Your task to perform on an android device: create a new album in the google photos Image 0: 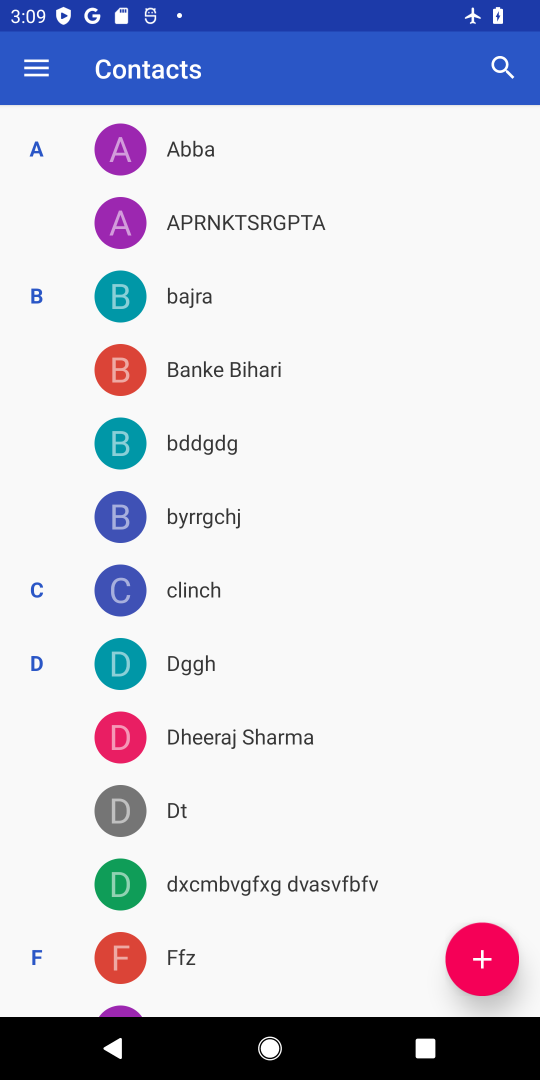
Step 0: press home button
Your task to perform on an android device: create a new album in the google photos Image 1: 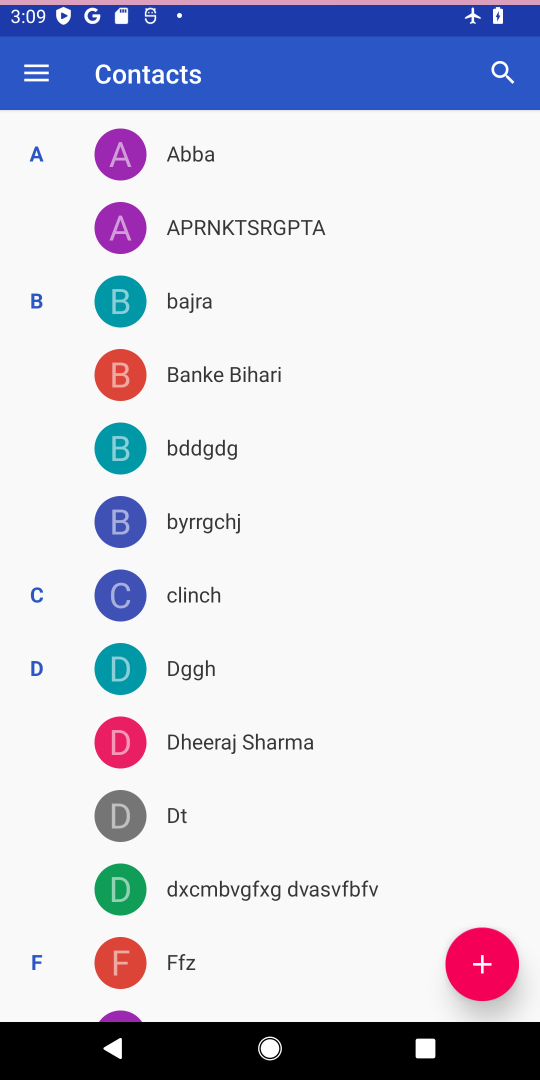
Step 1: press home button
Your task to perform on an android device: create a new album in the google photos Image 2: 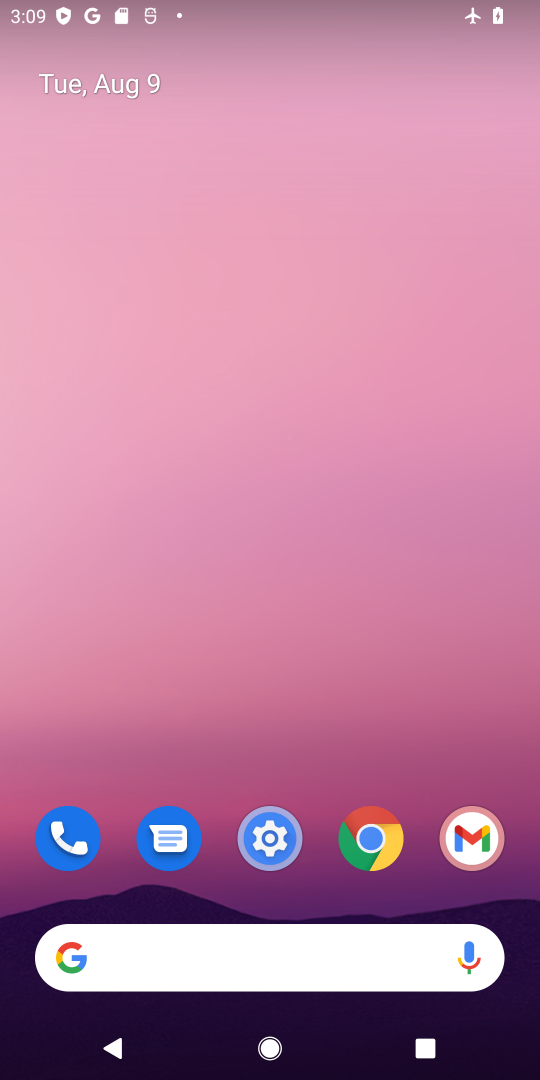
Step 2: drag from (291, 804) to (304, 168)
Your task to perform on an android device: create a new album in the google photos Image 3: 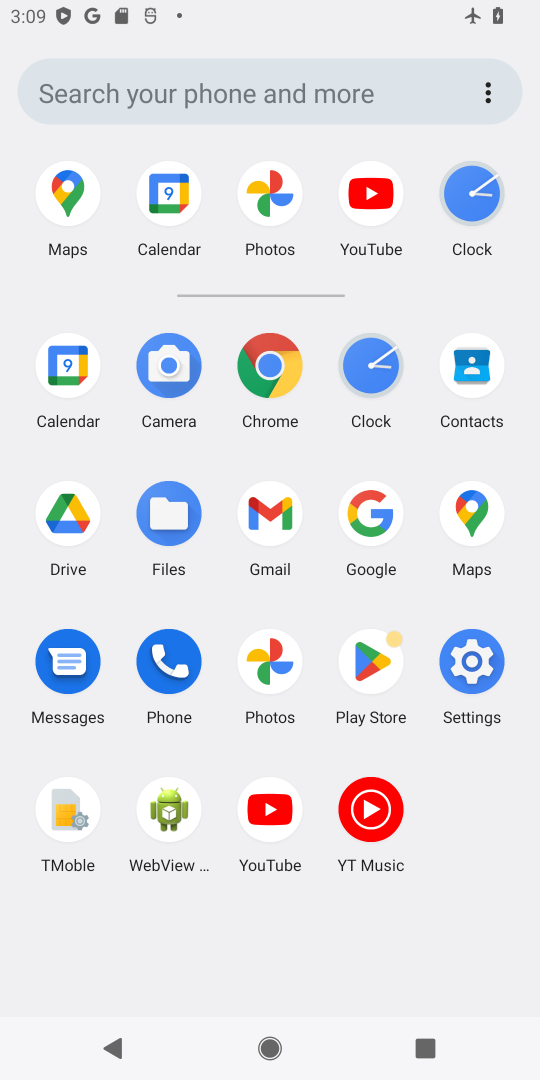
Step 3: click (258, 668)
Your task to perform on an android device: create a new album in the google photos Image 4: 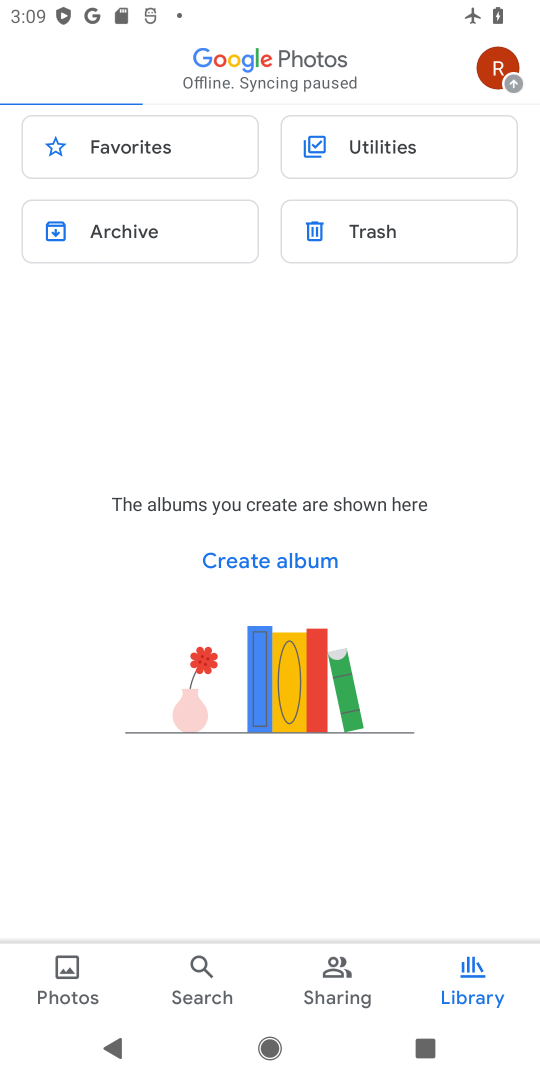
Step 4: click (72, 984)
Your task to perform on an android device: create a new album in the google photos Image 5: 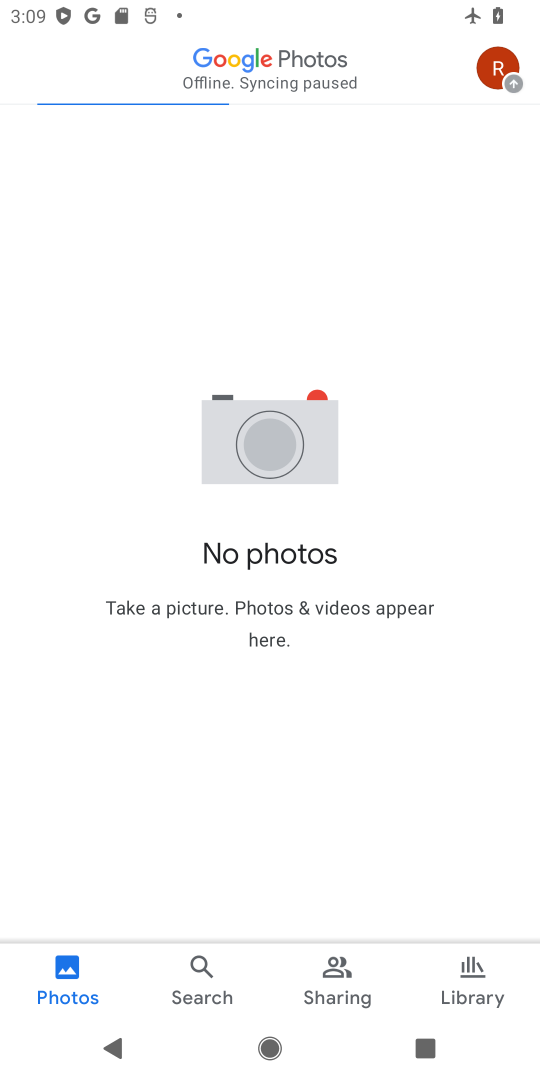
Step 5: click (368, 994)
Your task to perform on an android device: create a new album in the google photos Image 6: 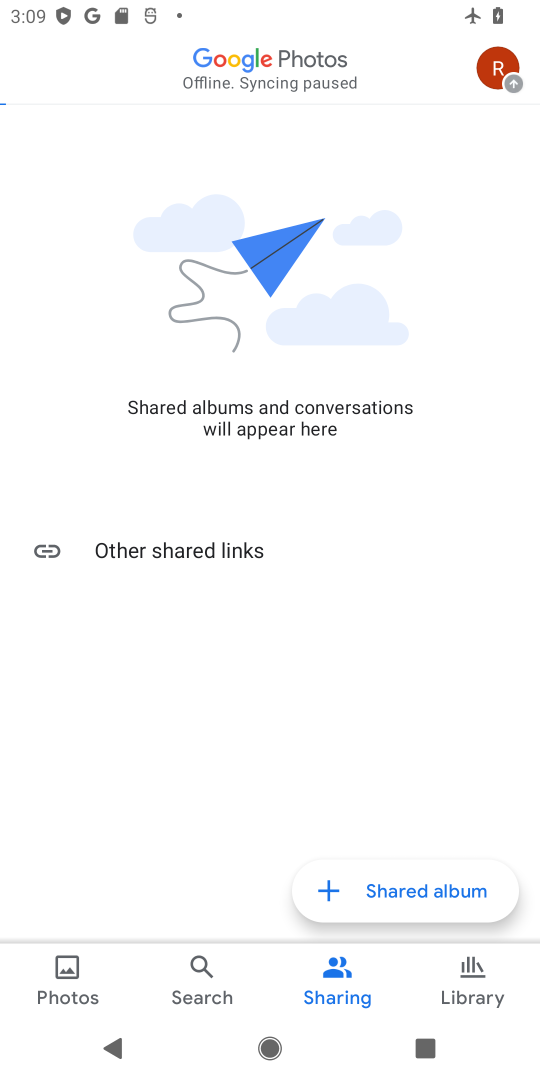
Step 6: click (477, 970)
Your task to perform on an android device: create a new album in the google photos Image 7: 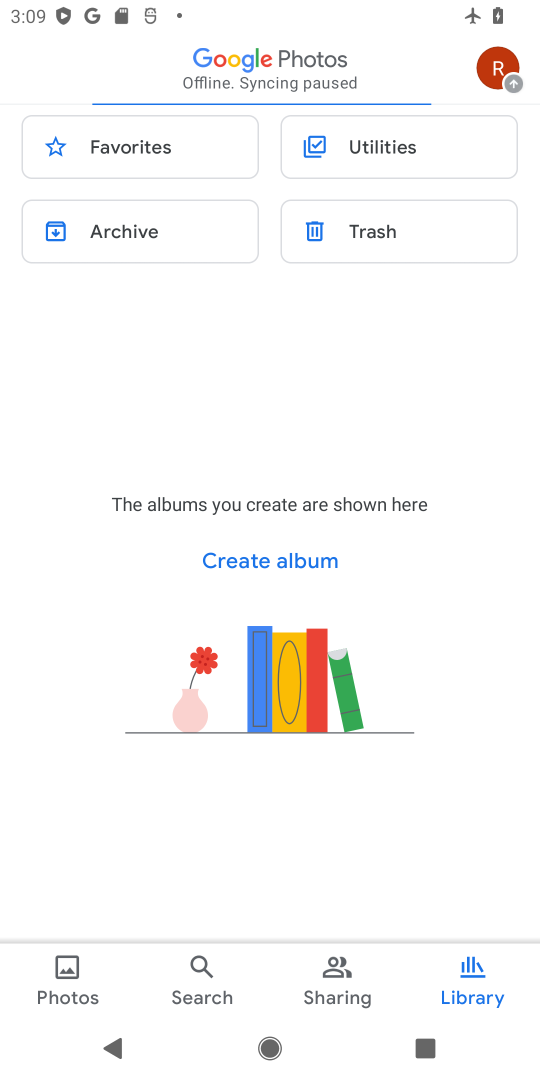
Step 7: click (231, 569)
Your task to perform on an android device: create a new album in the google photos Image 8: 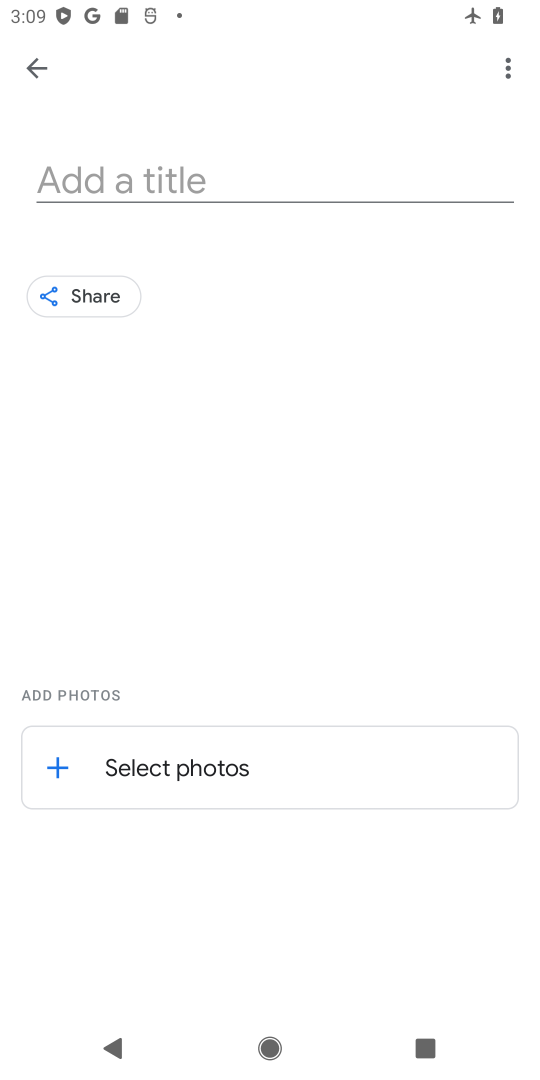
Step 8: click (296, 169)
Your task to perform on an android device: create a new album in the google photos Image 9: 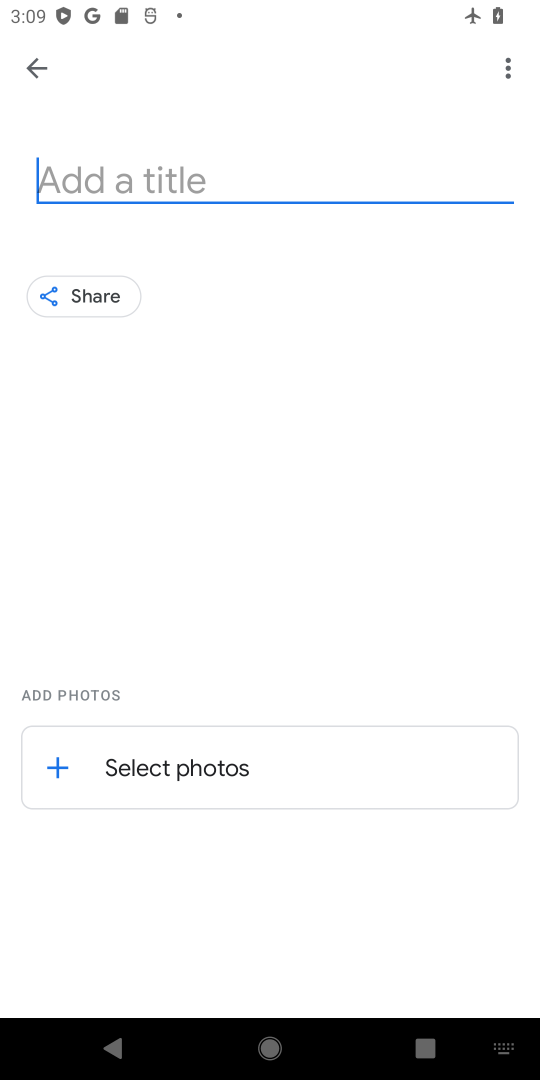
Step 9: click (304, 181)
Your task to perform on an android device: create a new album in the google photos Image 10: 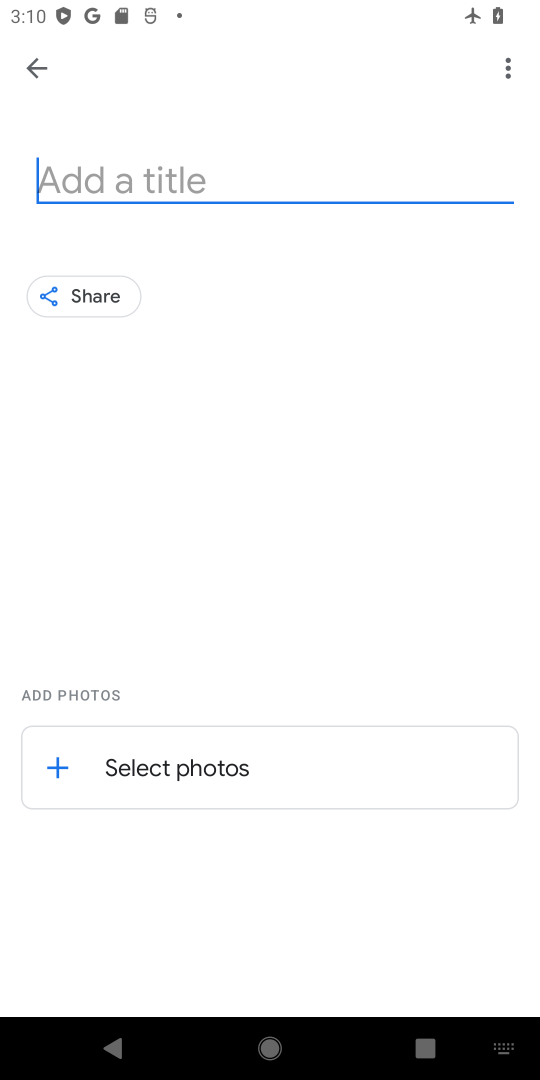
Step 10: type "fiik"
Your task to perform on an android device: create a new album in the google photos Image 11: 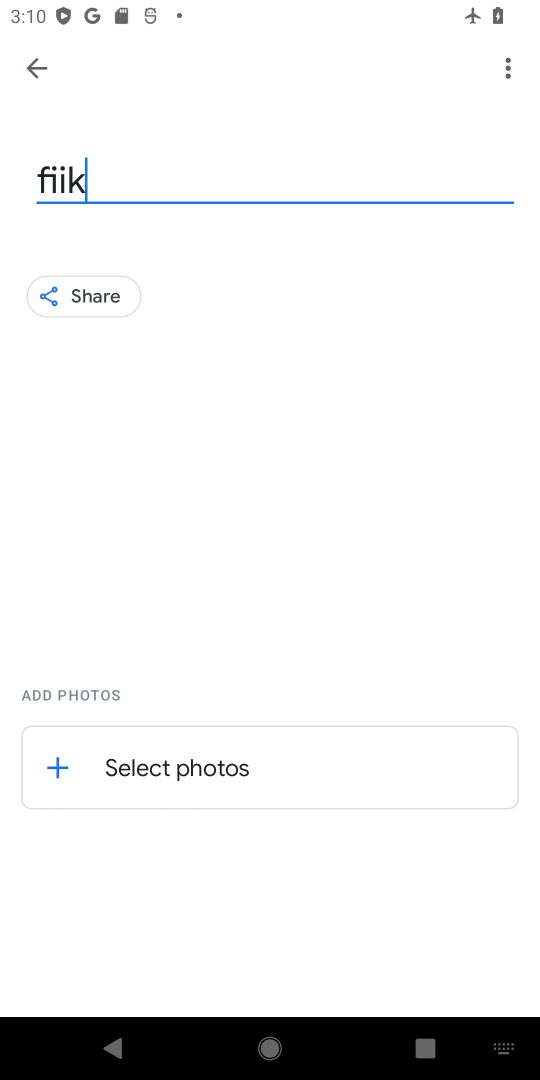
Step 11: click (505, 65)
Your task to perform on an android device: create a new album in the google photos Image 12: 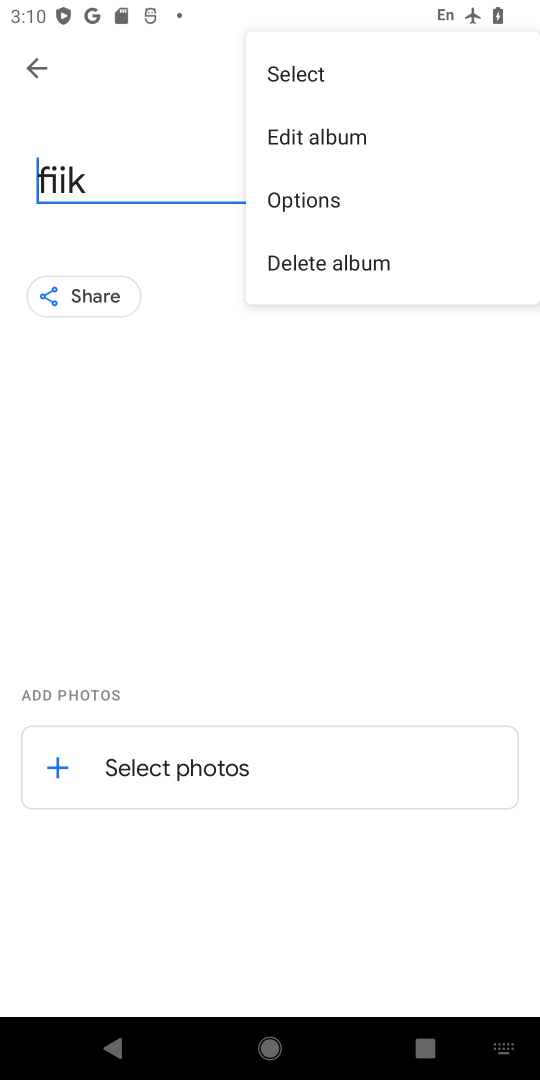
Step 12: click (294, 62)
Your task to perform on an android device: create a new album in the google photos Image 13: 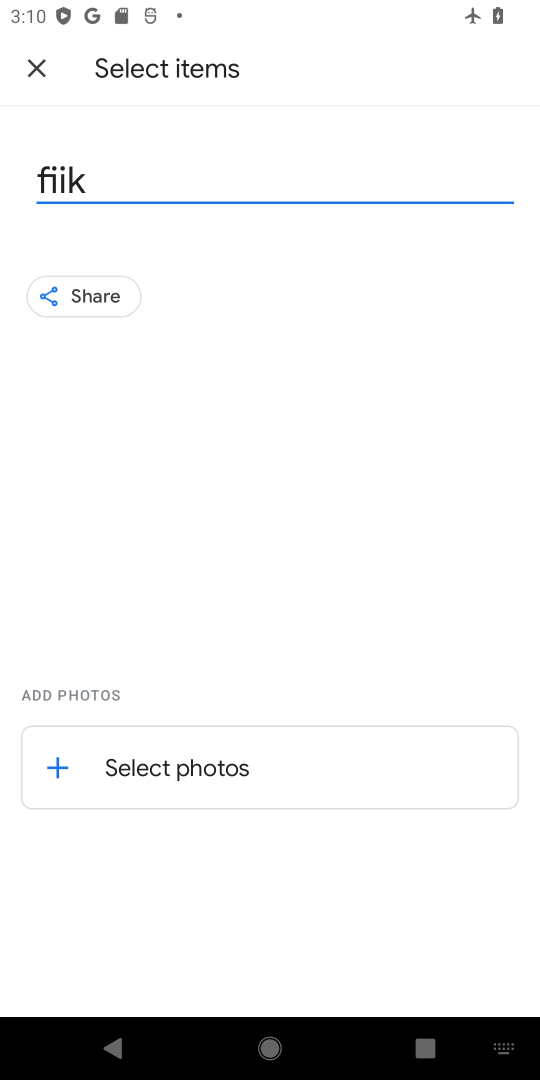
Step 13: click (24, 60)
Your task to perform on an android device: create a new album in the google photos Image 14: 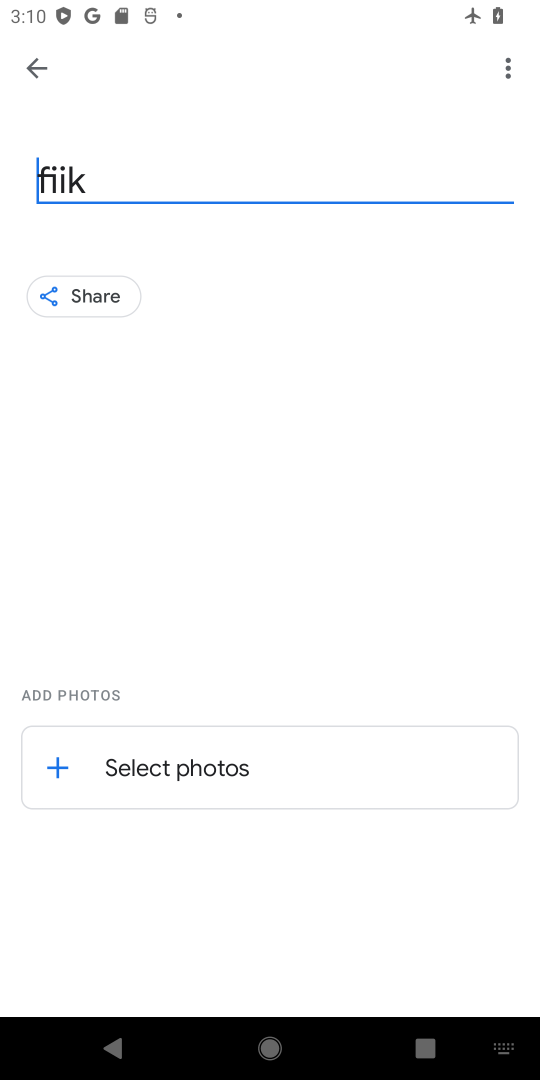
Step 14: task complete